Your task to perform on an android device: open a new tab in the chrome app Image 0: 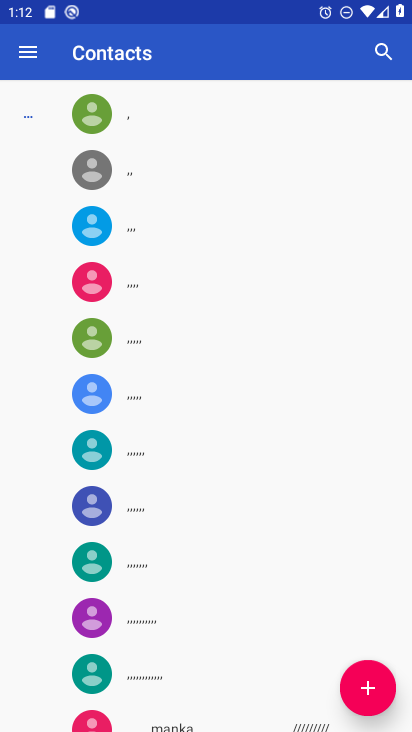
Step 0: press home button
Your task to perform on an android device: open a new tab in the chrome app Image 1: 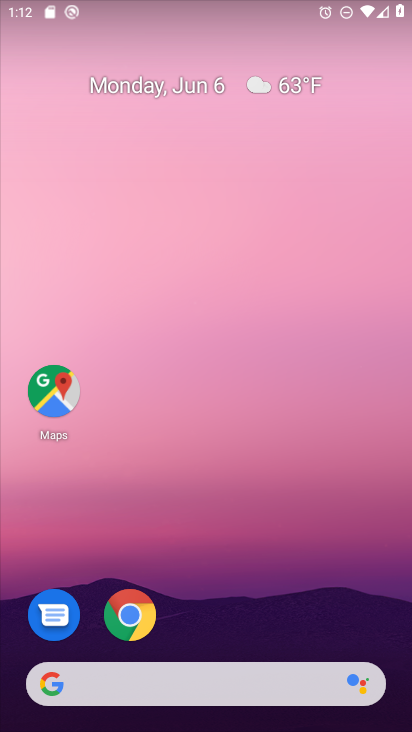
Step 1: drag from (239, 637) to (242, 108)
Your task to perform on an android device: open a new tab in the chrome app Image 2: 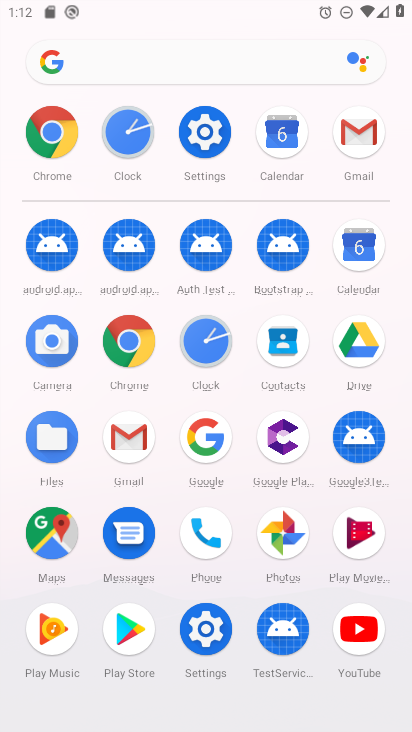
Step 2: click (127, 348)
Your task to perform on an android device: open a new tab in the chrome app Image 3: 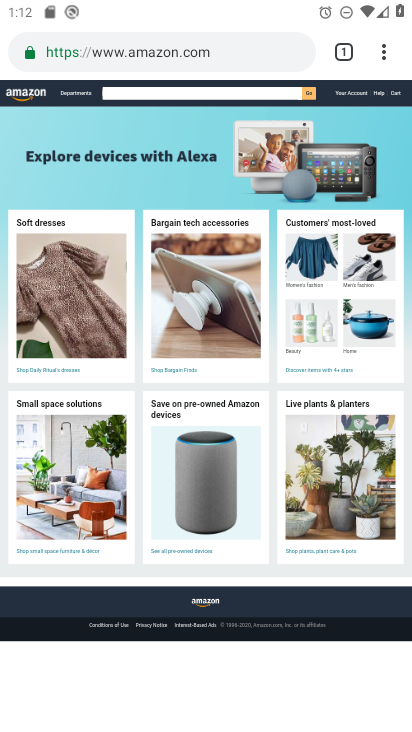
Step 3: click (392, 58)
Your task to perform on an android device: open a new tab in the chrome app Image 4: 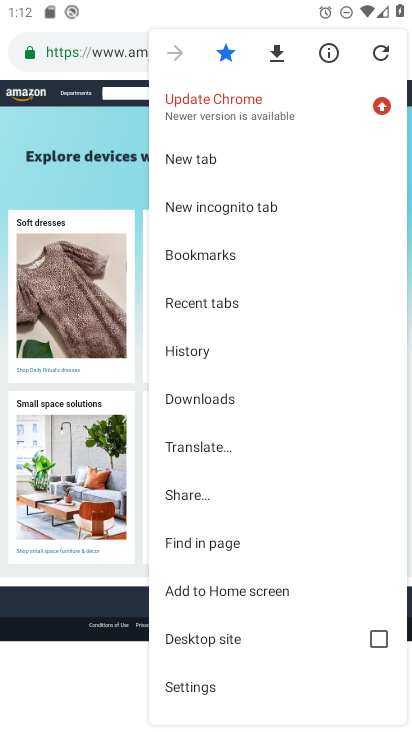
Step 4: click (207, 167)
Your task to perform on an android device: open a new tab in the chrome app Image 5: 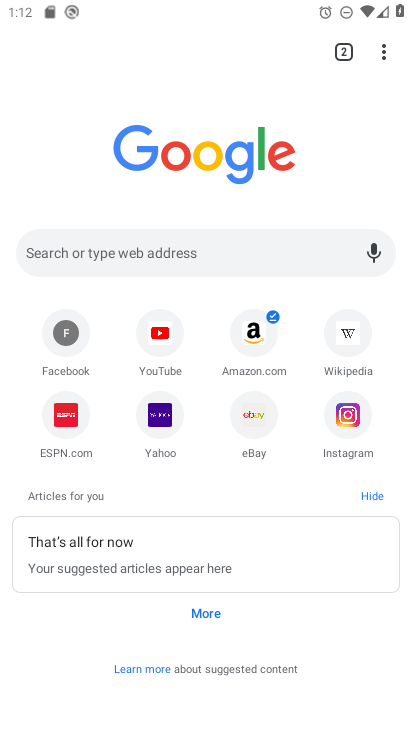
Step 5: task complete